Your task to perform on an android device: refresh tabs in the chrome app Image 0: 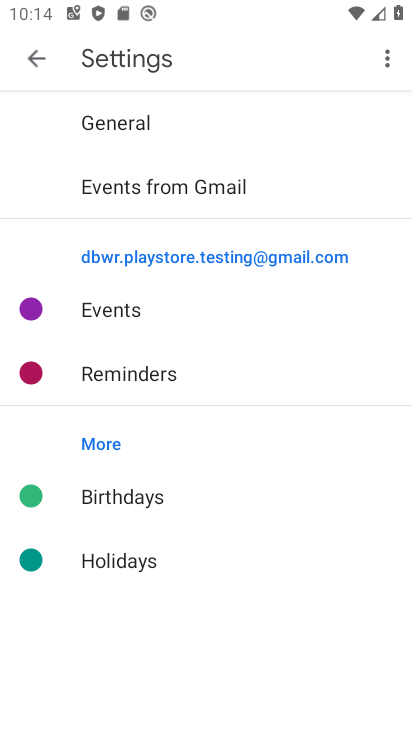
Step 0: press back button
Your task to perform on an android device: refresh tabs in the chrome app Image 1: 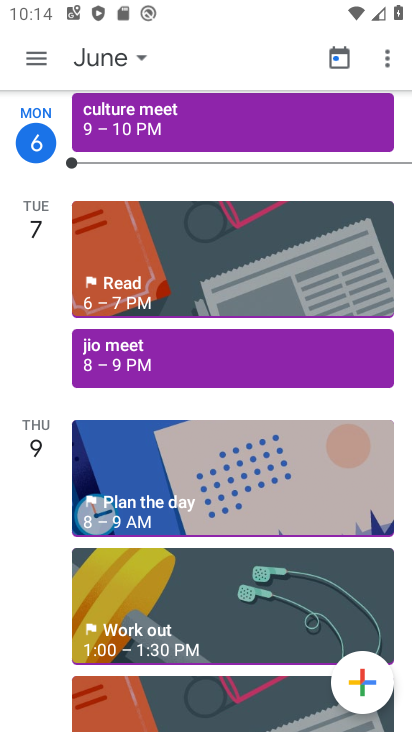
Step 1: press home button
Your task to perform on an android device: refresh tabs in the chrome app Image 2: 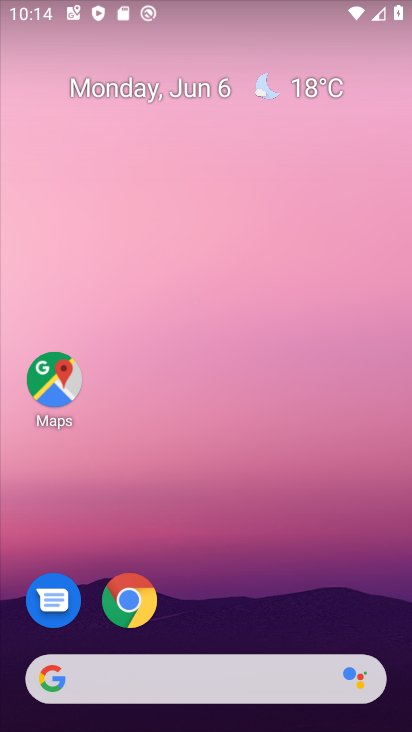
Step 2: drag from (265, 523) to (194, 35)
Your task to perform on an android device: refresh tabs in the chrome app Image 3: 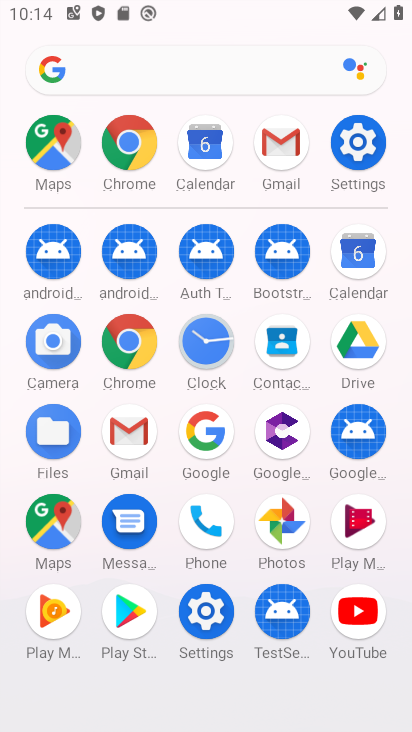
Step 3: click (128, 337)
Your task to perform on an android device: refresh tabs in the chrome app Image 4: 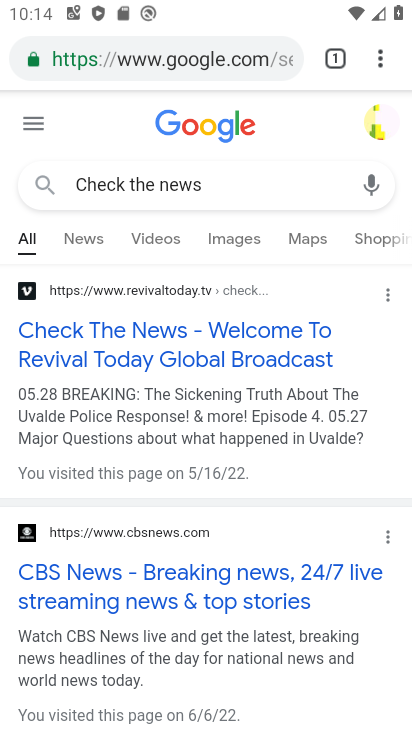
Step 4: click (385, 61)
Your task to perform on an android device: refresh tabs in the chrome app Image 5: 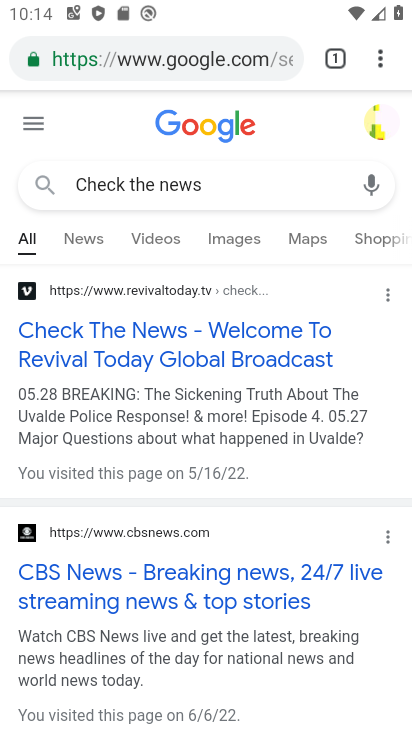
Step 5: task complete